Your task to perform on an android device: find photos in the google photos app Image 0: 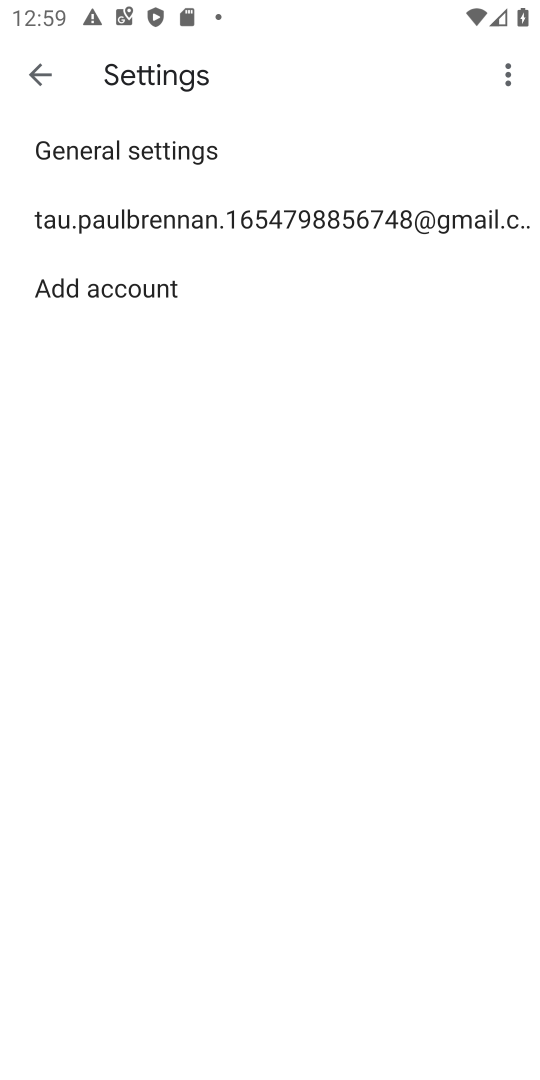
Step 0: press home button
Your task to perform on an android device: find photos in the google photos app Image 1: 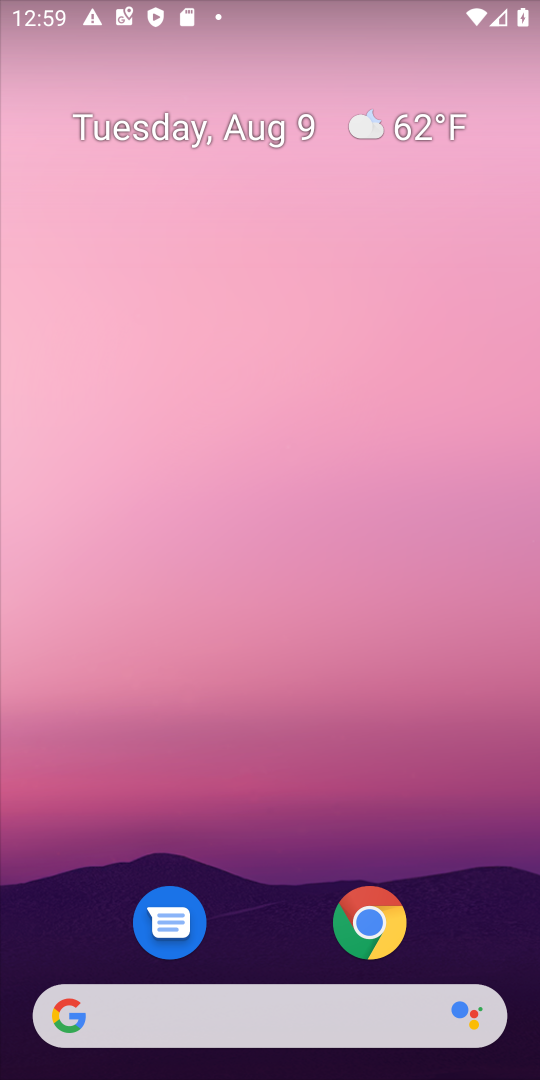
Step 1: drag from (285, 938) to (220, 259)
Your task to perform on an android device: find photos in the google photos app Image 2: 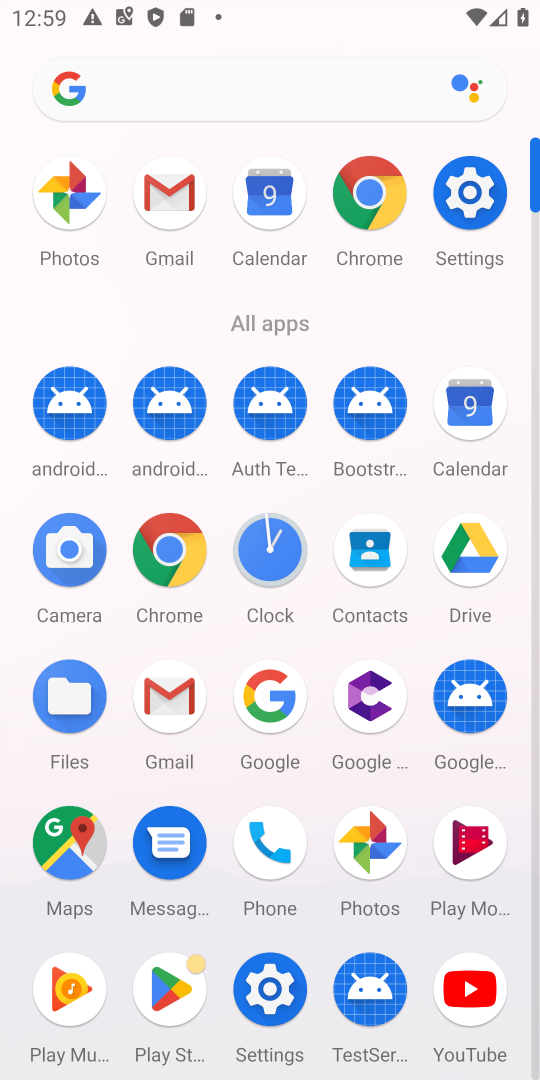
Step 2: click (382, 852)
Your task to perform on an android device: find photos in the google photos app Image 3: 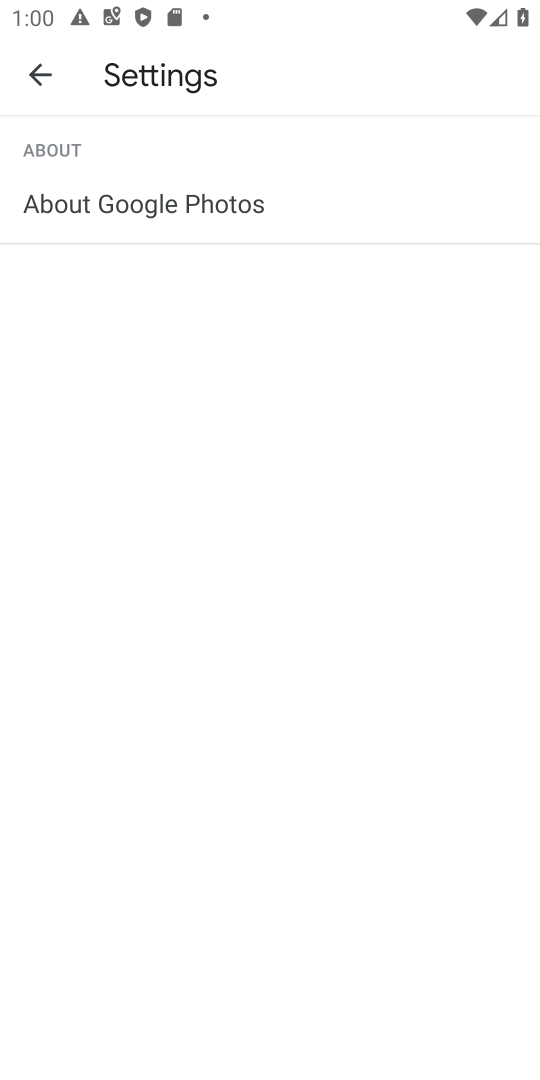
Step 3: click (35, 78)
Your task to perform on an android device: find photos in the google photos app Image 4: 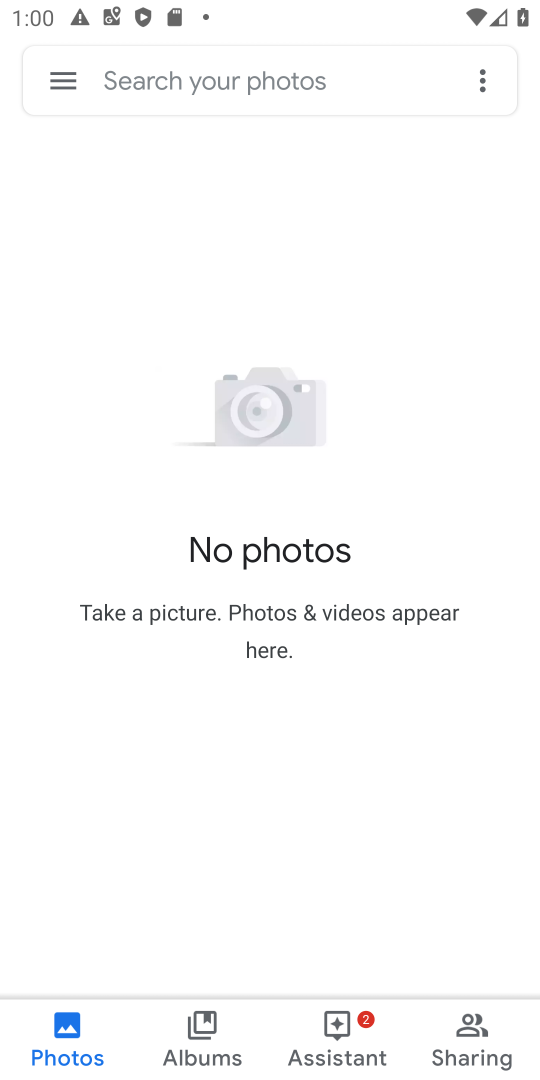
Step 4: task complete